Your task to perform on an android device: toggle show notifications on the lock screen Image 0: 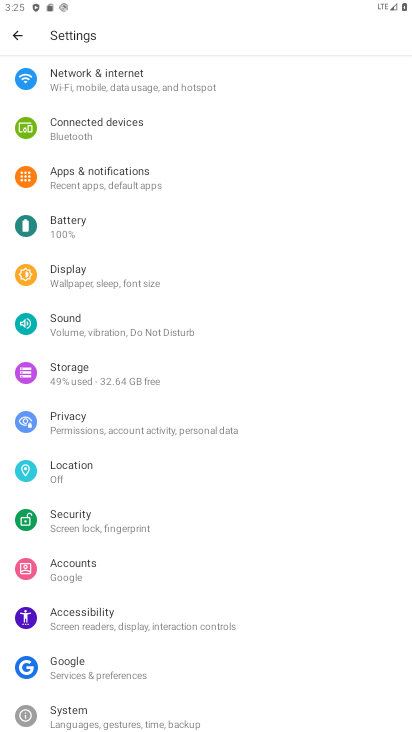
Step 0: click (86, 180)
Your task to perform on an android device: toggle show notifications on the lock screen Image 1: 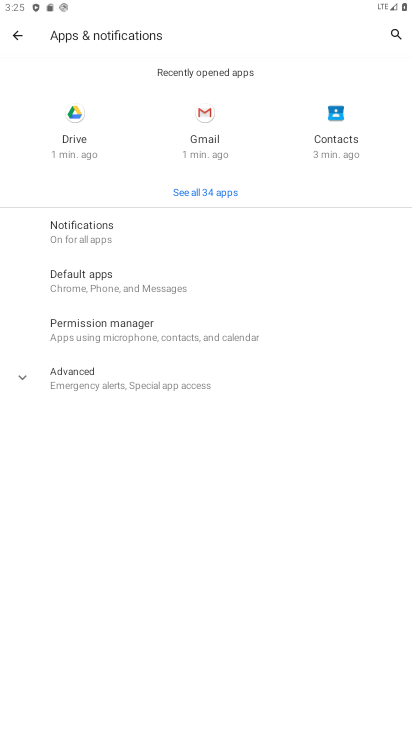
Step 1: click (78, 228)
Your task to perform on an android device: toggle show notifications on the lock screen Image 2: 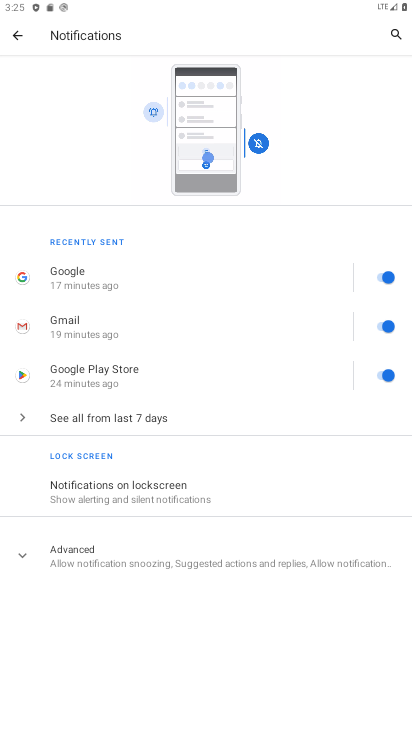
Step 2: click (90, 489)
Your task to perform on an android device: toggle show notifications on the lock screen Image 3: 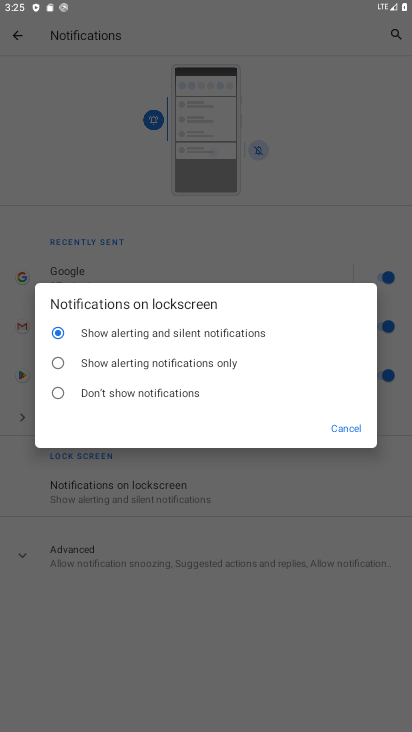
Step 3: click (55, 385)
Your task to perform on an android device: toggle show notifications on the lock screen Image 4: 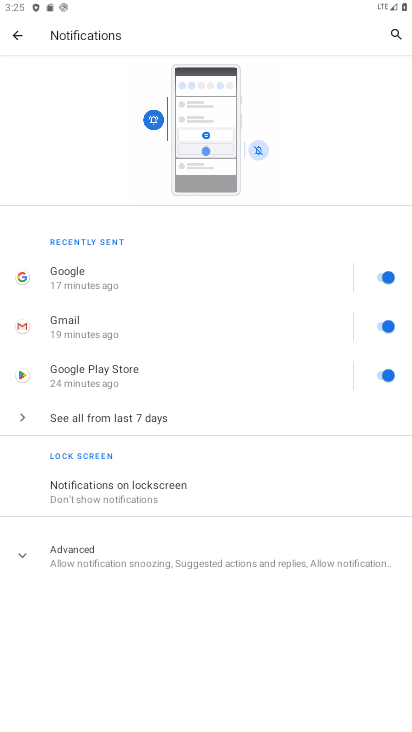
Step 4: task complete